Your task to perform on an android device: turn off notifications settings in the gmail app Image 0: 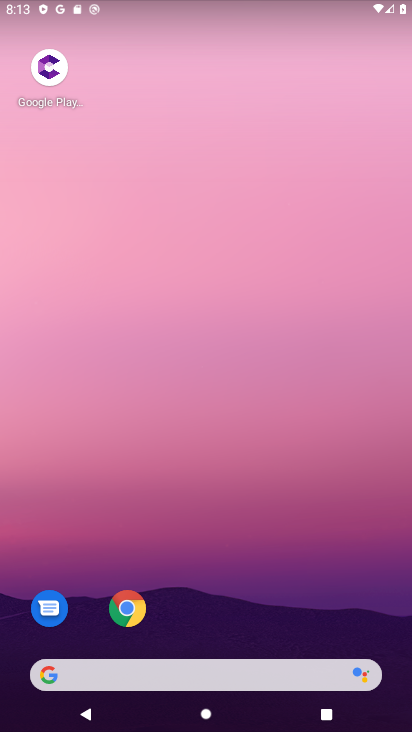
Step 0: click (215, 188)
Your task to perform on an android device: turn off notifications settings in the gmail app Image 1: 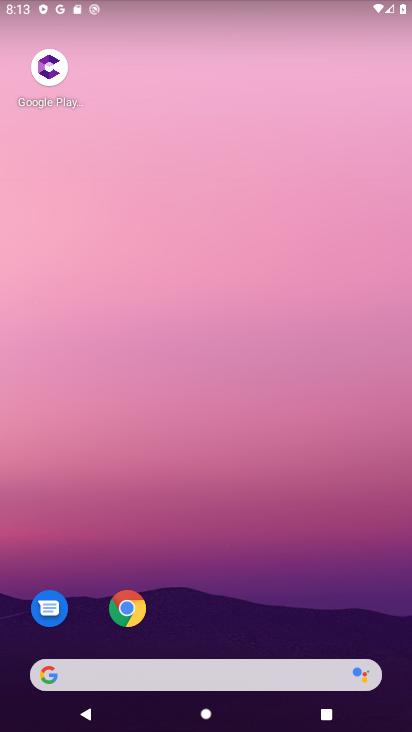
Step 1: drag from (287, 463) to (274, 97)
Your task to perform on an android device: turn off notifications settings in the gmail app Image 2: 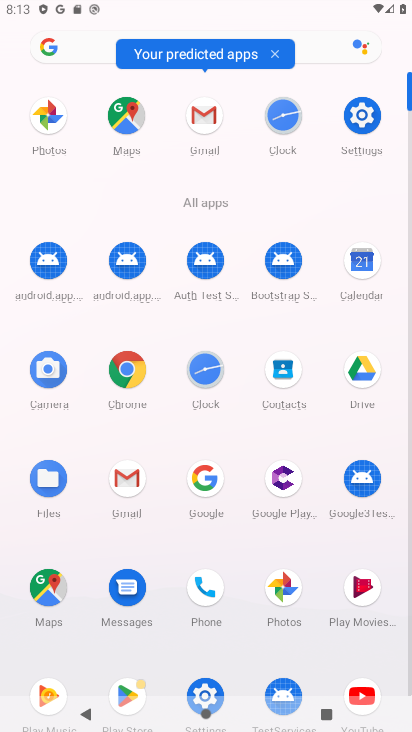
Step 2: click (126, 481)
Your task to perform on an android device: turn off notifications settings in the gmail app Image 3: 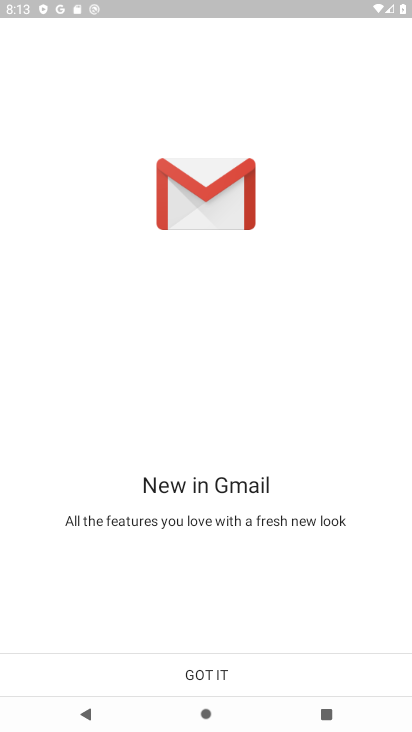
Step 3: click (200, 672)
Your task to perform on an android device: turn off notifications settings in the gmail app Image 4: 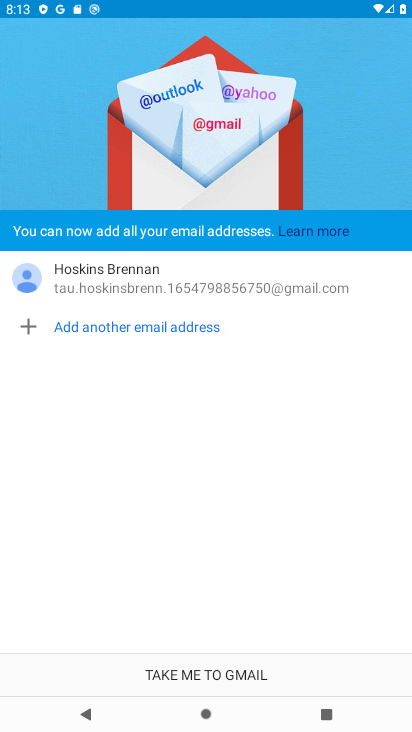
Step 4: click (208, 669)
Your task to perform on an android device: turn off notifications settings in the gmail app Image 5: 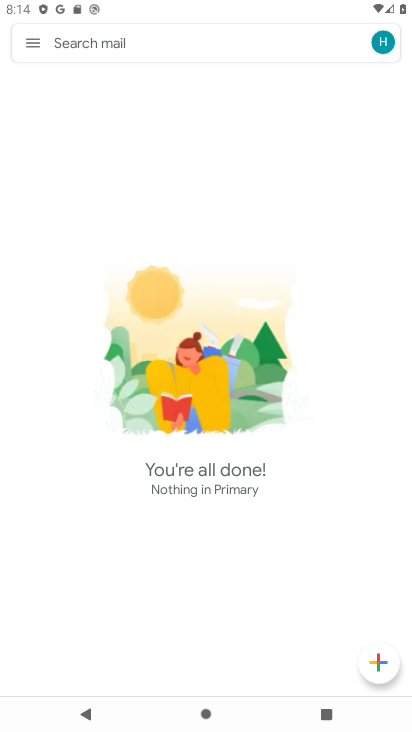
Step 5: task complete